Your task to perform on an android device: Open internet settings Image 0: 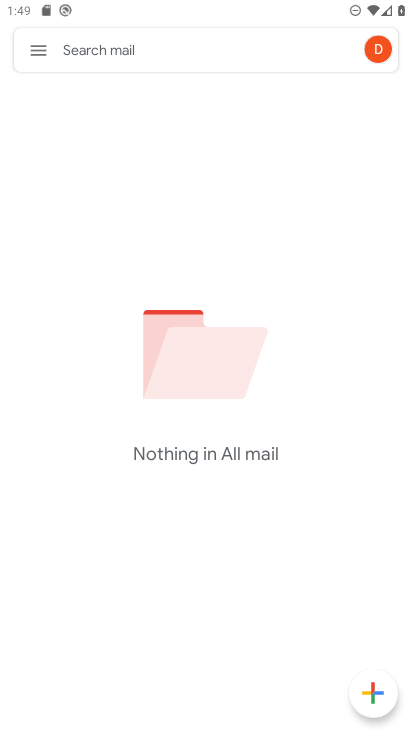
Step 0: press home button
Your task to perform on an android device: Open internet settings Image 1: 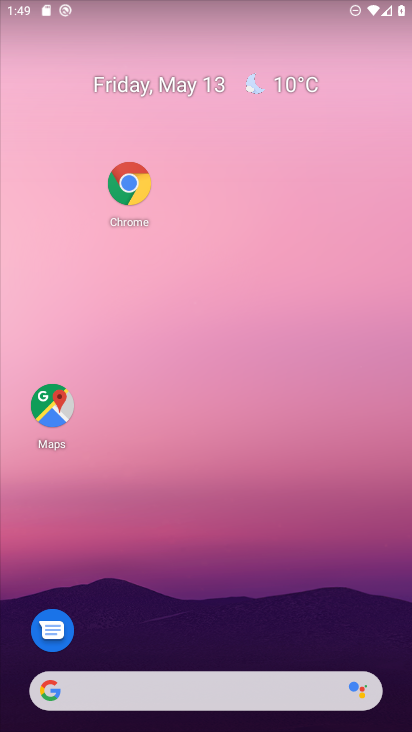
Step 1: drag from (190, 678) to (194, 234)
Your task to perform on an android device: Open internet settings Image 2: 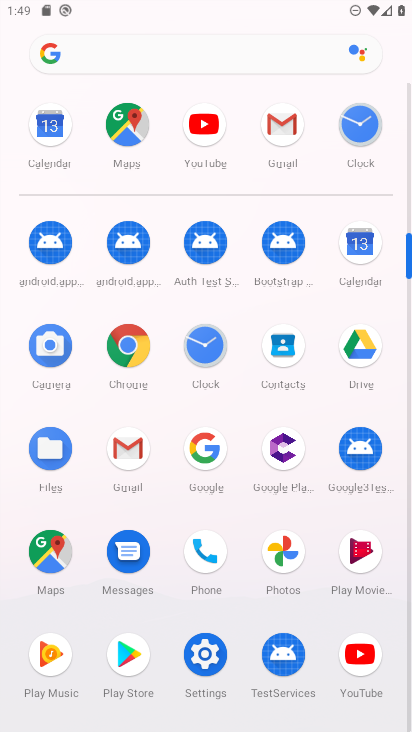
Step 2: click (200, 643)
Your task to perform on an android device: Open internet settings Image 3: 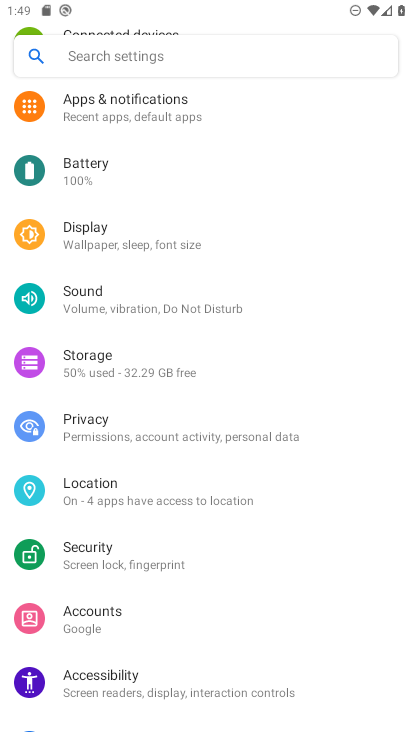
Step 3: drag from (184, 203) to (232, 609)
Your task to perform on an android device: Open internet settings Image 4: 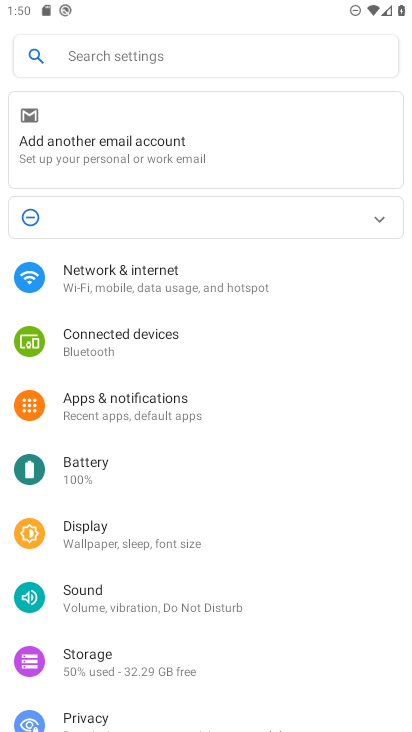
Step 4: click (139, 270)
Your task to perform on an android device: Open internet settings Image 5: 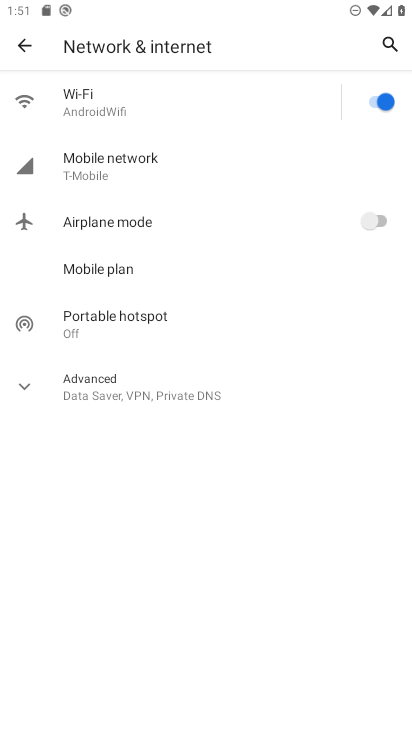
Step 5: task complete